Your task to perform on an android device: Go to Google Image 0: 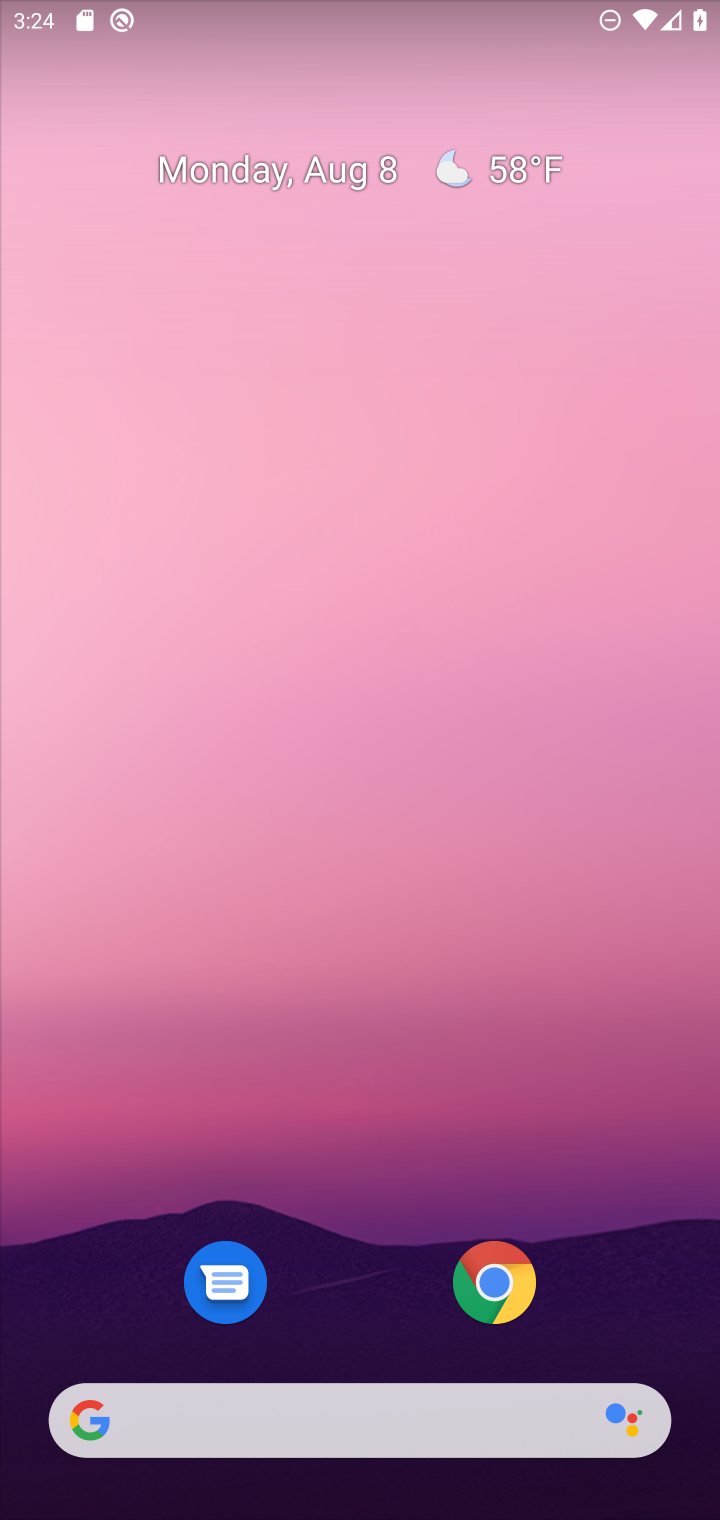
Step 0: drag from (345, 1314) to (571, 237)
Your task to perform on an android device: Go to Google Image 1: 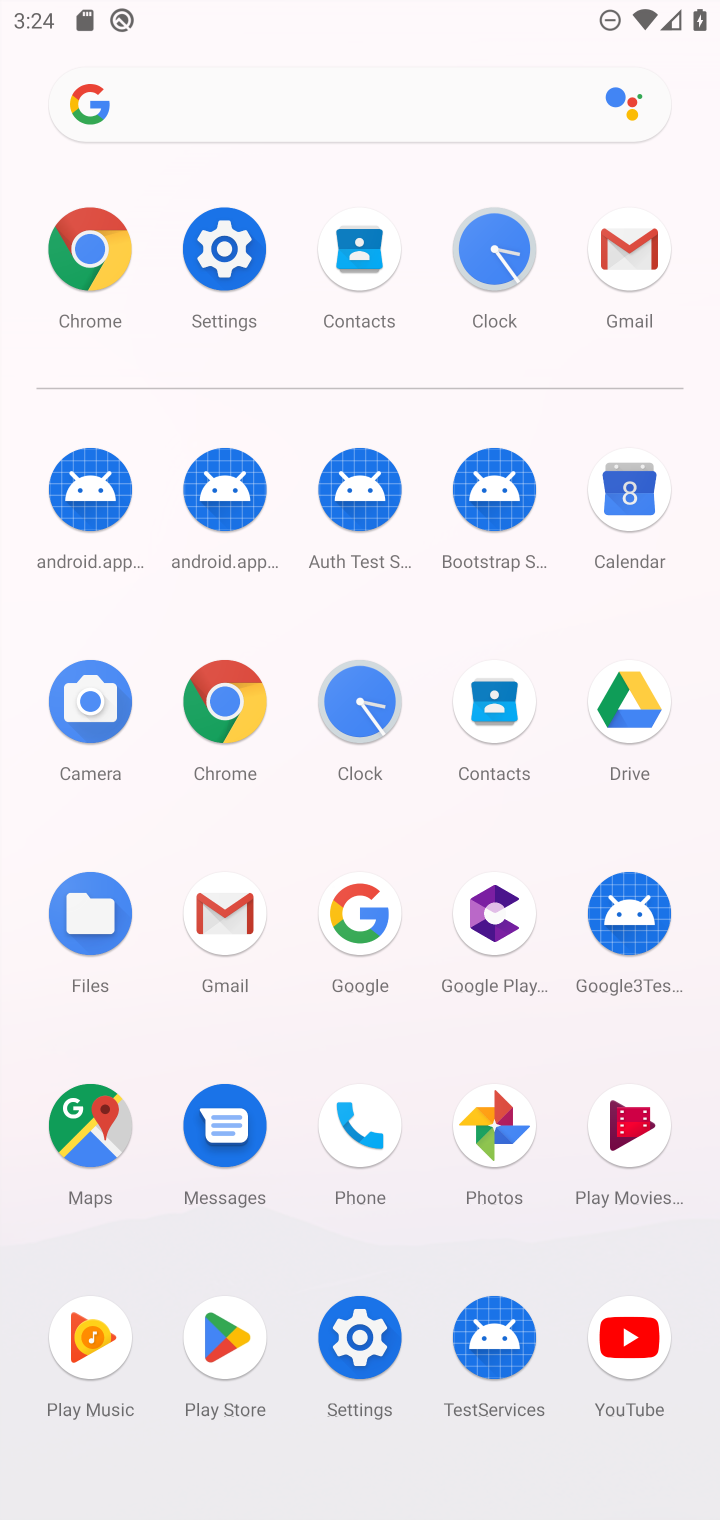
Step 1: click (360, 892)
Your task to perform on an android device: Go to Google Image 2: 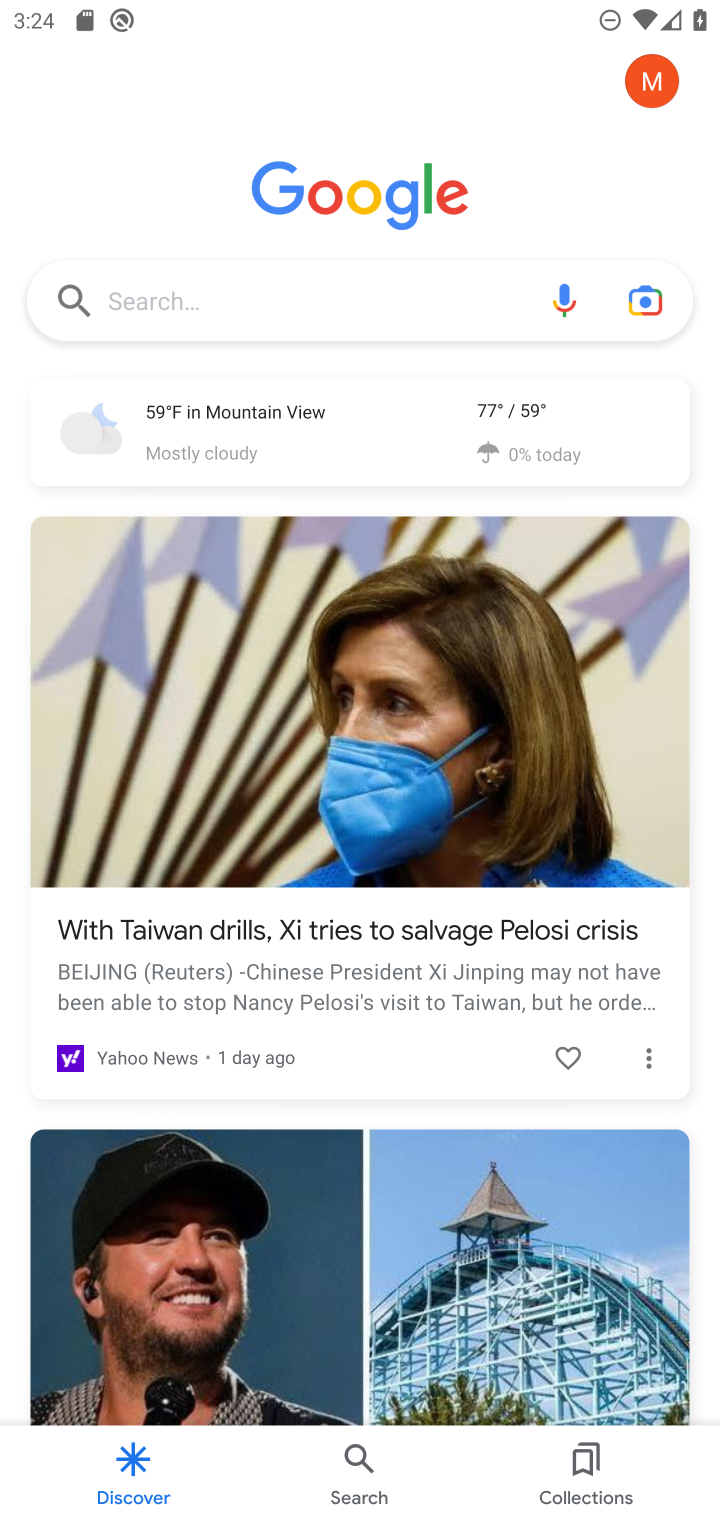
Step 2: task complete